Your task to perform on an android device: What is the news today? Image 0: 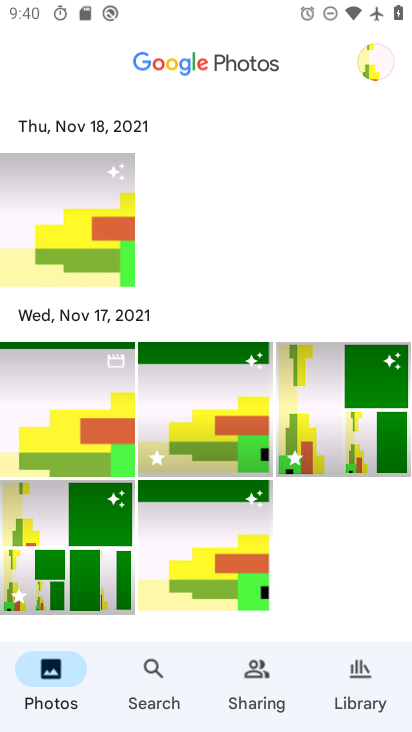
Step 0: press home button
Your task to perform on an android device: What is the news today? Image 1: 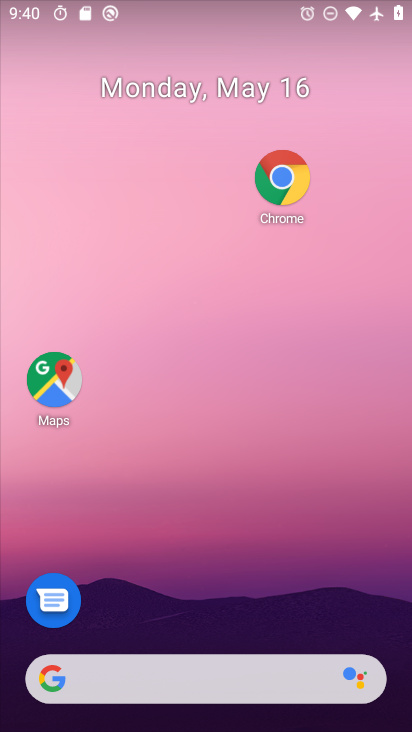
Step 1: click (54, 678)
Your task to perform on an android device: What is the news today? Image 2: 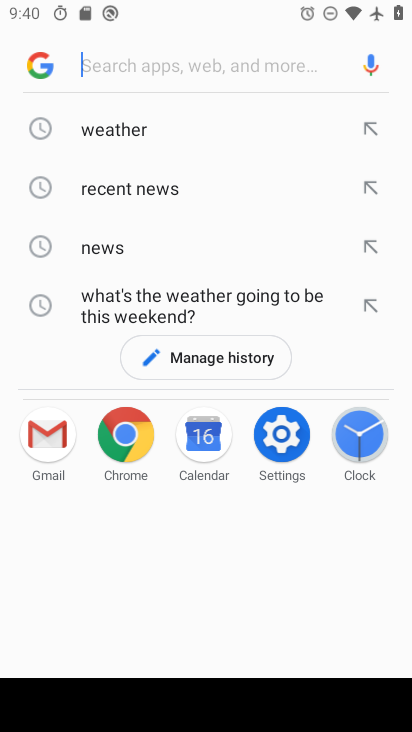
Step 2: click (112, 250)
Your task to perform on an android device: What is the news today? Image 3: 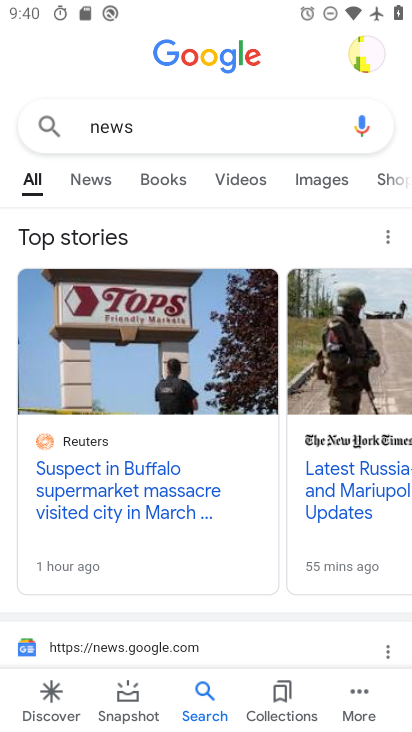
Step 3: click (95, 181)
Your task to perform on an android device: What is the news today? Image 4: 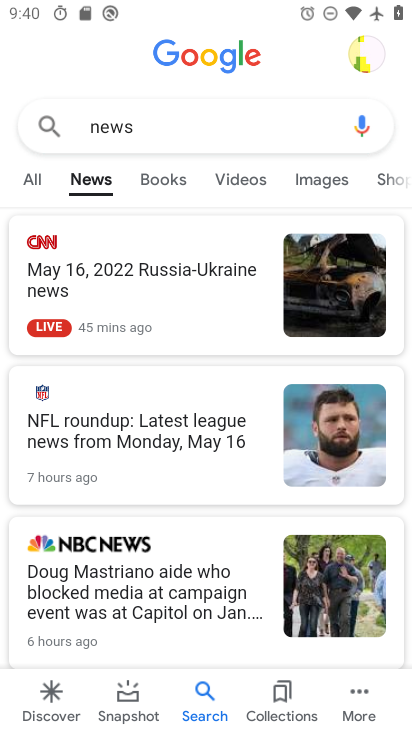
Step 4: task complete